Your task to perform on an android device: Add "razer thresher" to the cart on target.com, then select checkout. Image 0: 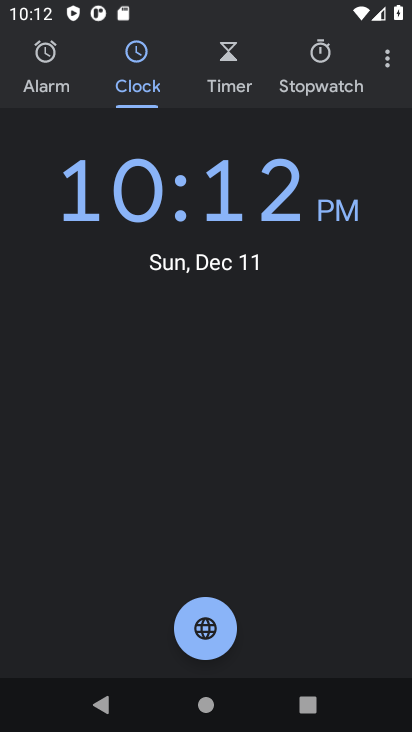
Step 0: press home button
Your task to perform on an android device: Add "razer thresher" to the cart on target.com, then select checkout. Image 1: 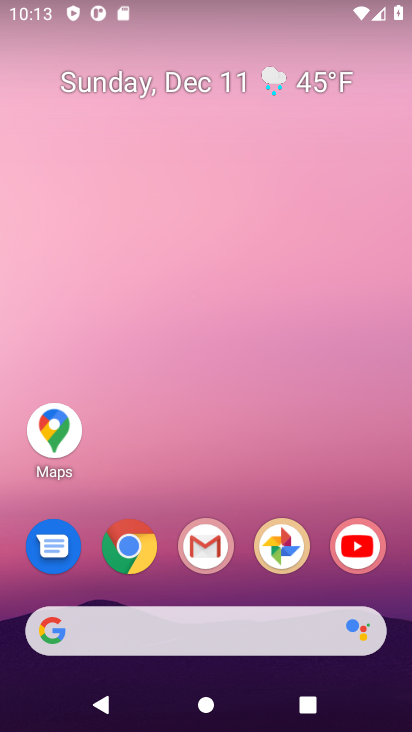
Step 1: click (130, 554)
Your task to perform on an android device: Add "razer thresher" to the cart on target.com, then select checkout. Image 2: 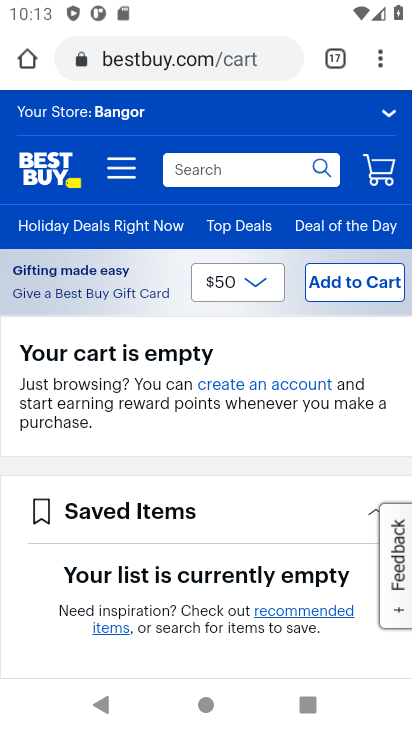
Step 2: click (165, 62)
Your task to perform on an android device: Add "razer thresher" to the cart on target.com, then select checkout. Image 3: 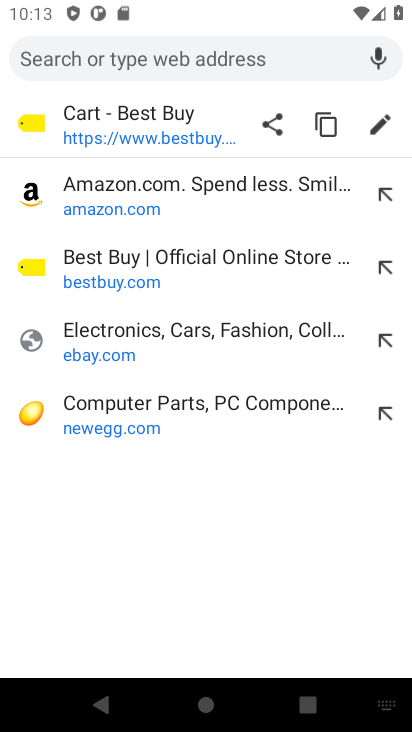
Step 3: type "target.com"
Your task to perform on an android device: Add "razer thresher" to the cart on target.com, then select checkout. Image 4: 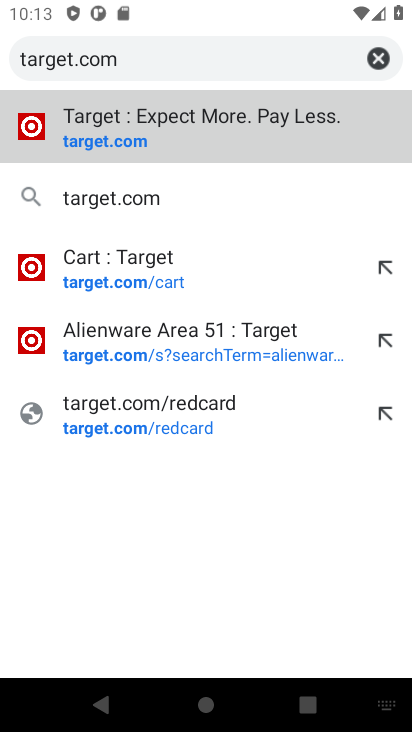
Step 4: click (124, 146)
Your task to perform on an android device: Add "razer thresher" to the cart on target.com, then select checkout. Image 5: 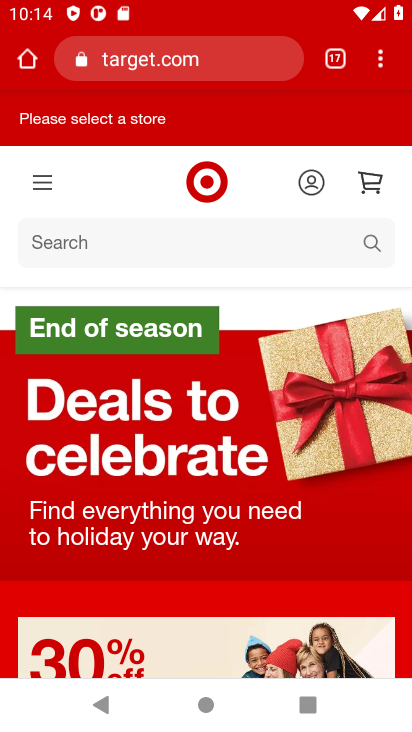
Step 5: click (74, 247)
Your task to perform on an android device: Add "razer thresher" to the cart on target.com, then select checkout. Image 6: 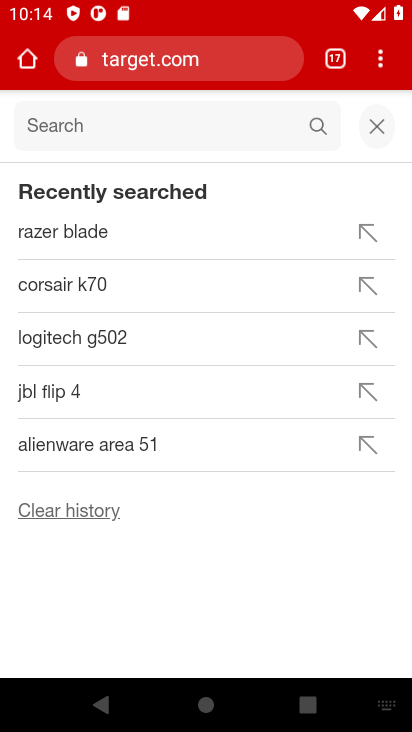
Step 6: type "razer thresher"
Your task to perform on an android device: Add "razer thresher" to the cart on target.com, then select checkout. Image 7: 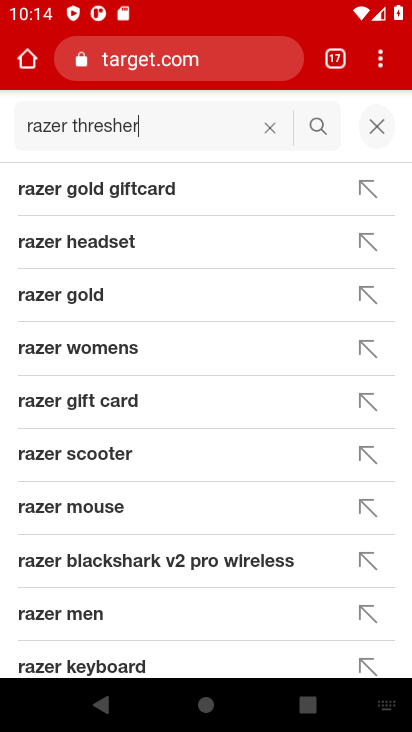
Step 7: click (317, 127)
Your task to perform on an android device: Add "razer thresher" to the cart on target.com, then select checkout. Image 8: 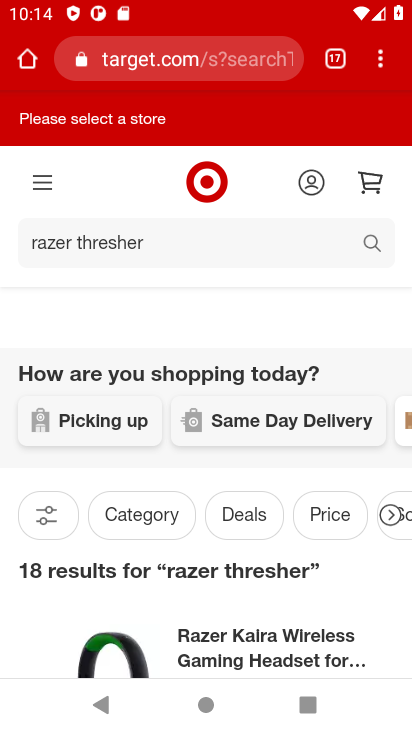
Step 8: task complete